Your task to perform on an android device: Go to Maps Image 0: 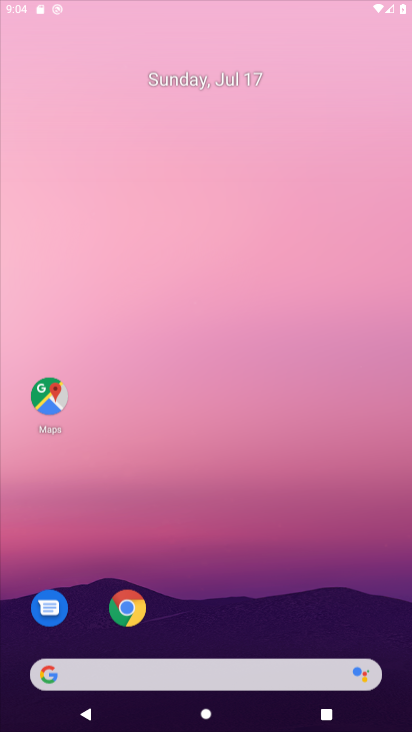
Step 0: click (329, 299)
Your task to perform on an android device: Go to Maps Image 1: 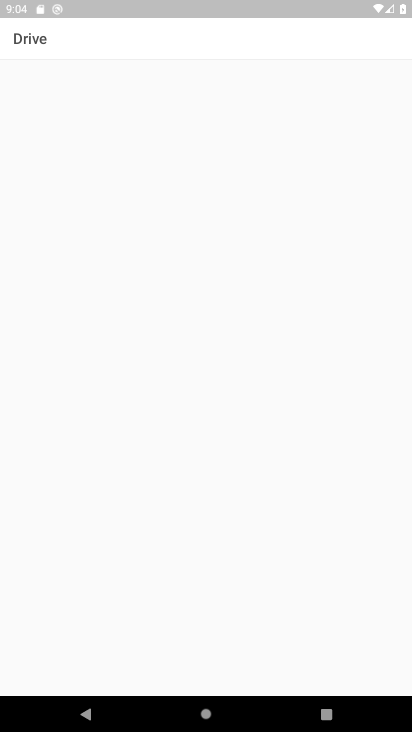
Step 1: press back button
Your task to perform on an android device: Go to Maps Image 2: 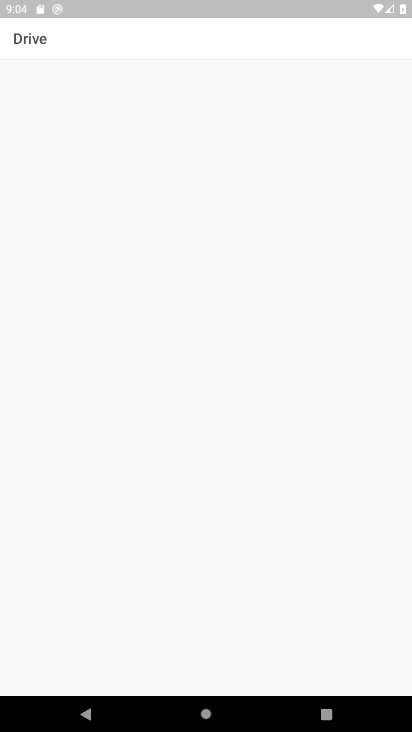
Step 2: press home button
Your task to perform on an android device: Go to Maps Image 3: 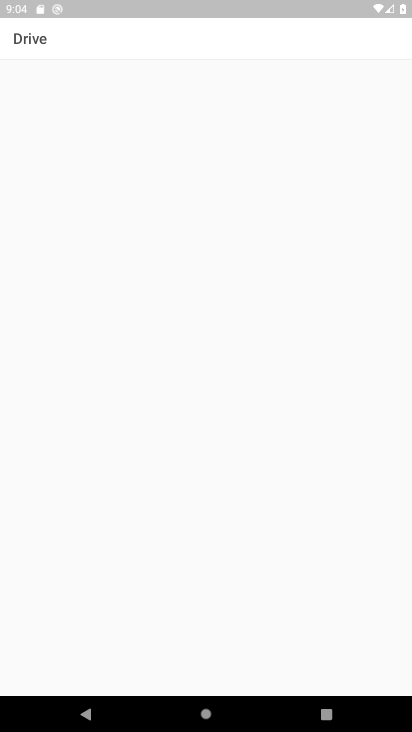
Step 3: click (268, 355)
Your task to perform on an android device: Go to Maps Image 4: 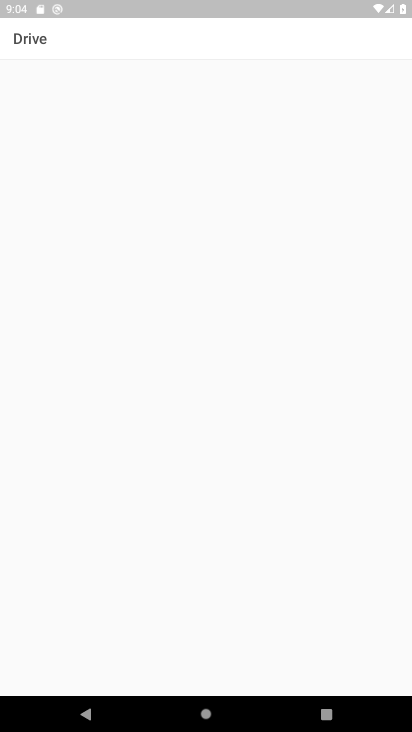
Step 4: click (268, 352)
Your task to perform on an android device: Go to Maps Image 5: 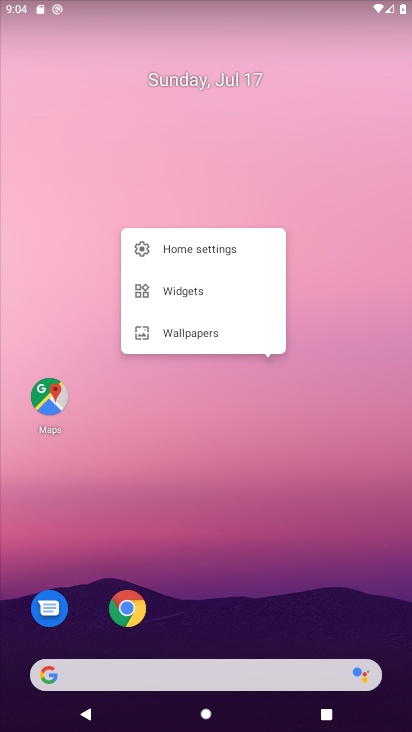
Step 5: drag from (264, 668) to (253, 196)
Your task to perform on an android device: Go to Maps Image 6: 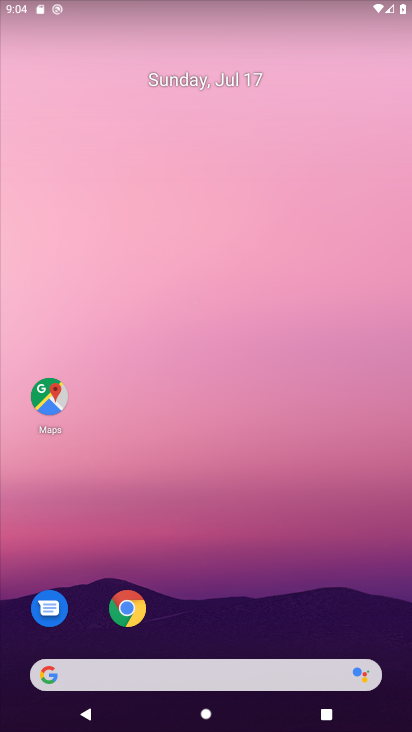
Step 6: drag from (237, 603) to (232, 126)
Your task to perform on an android device: Go to Maps Image 7: 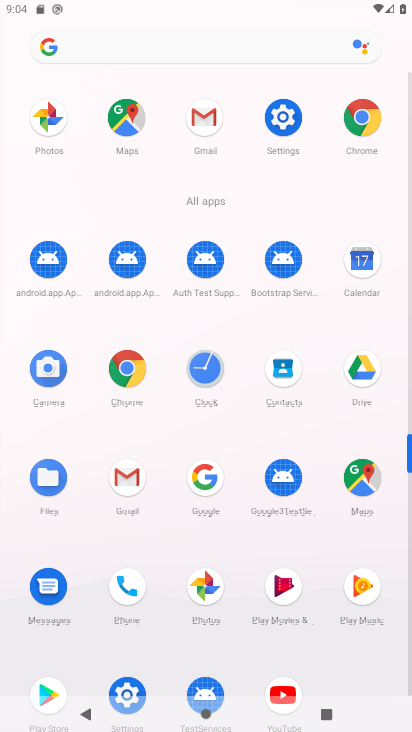
Step 7: click (360, 478)
Your task to perform on an android device: Go to Maps Image 8: 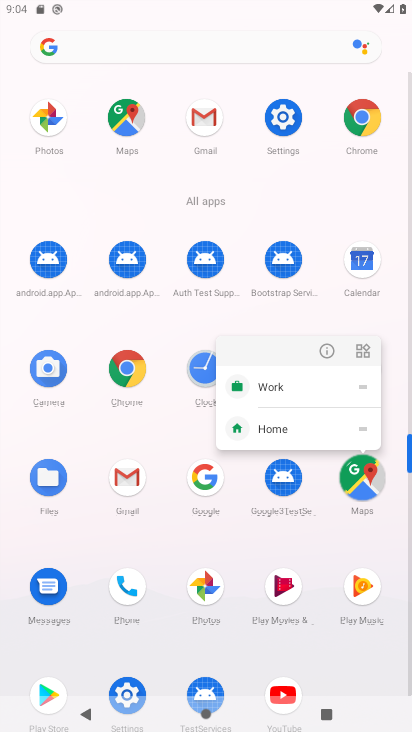
Step 8: click (365, 478)
Your task to perform on an android device: Go to Maps Image 9: 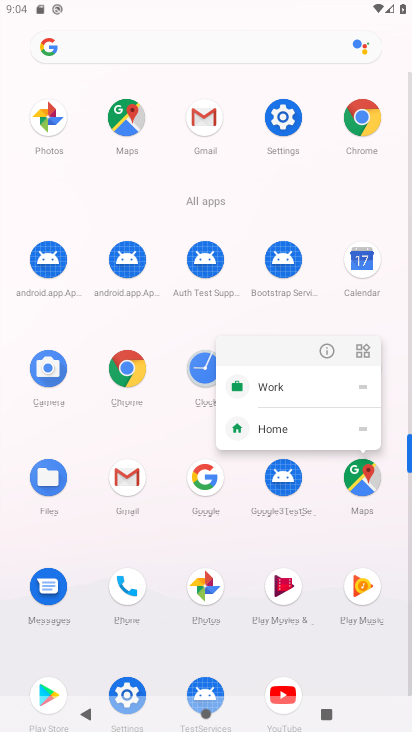
Step 9: click (365, 478)
Your task to perform on an android device: Go to Maps Image 10: 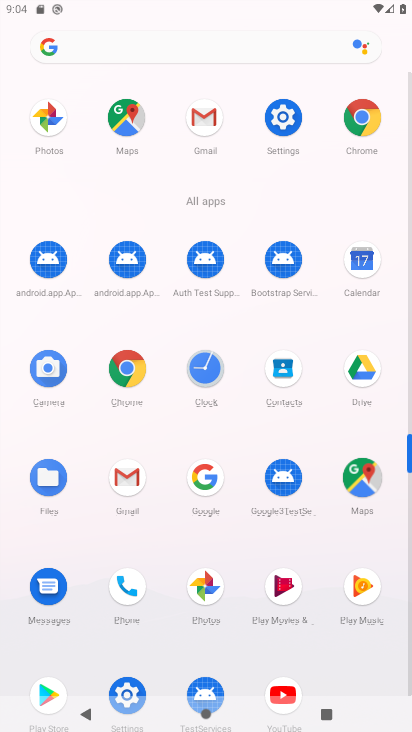
Step 10: click (368, 481)
Your task to perform on an android device: Go to Maps Image 11: 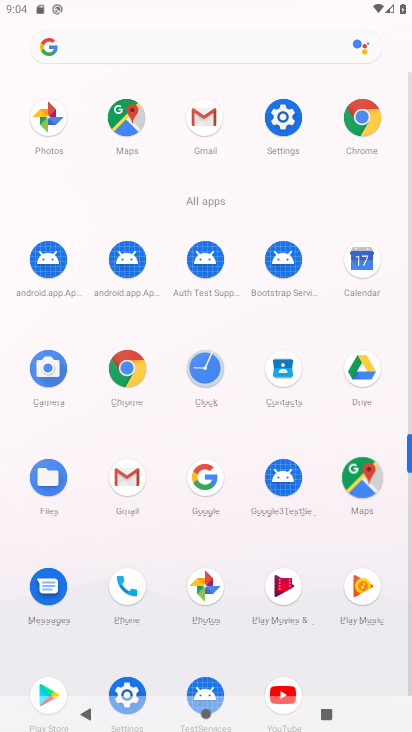
Step 11: click (368, 484)
Your task to perform on an android device: Go to Maps Image 12: 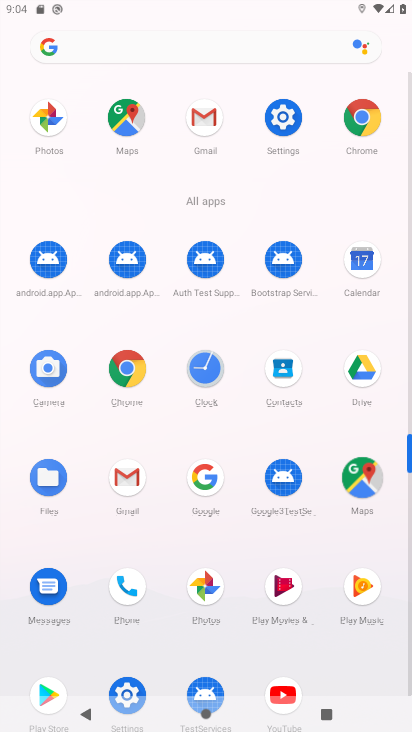
Step 12: click (345, 479)
Your task to perform on an android device: Go to Maps Image 13: 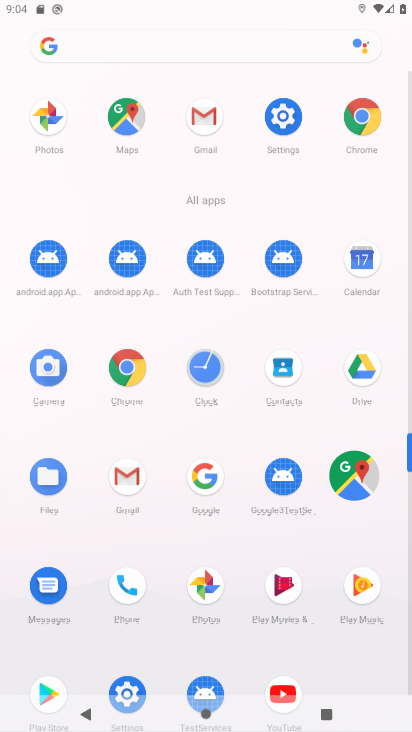
Step 13: click (344, 478)
Your task to perform on an android device: Go to Maps Image 14: 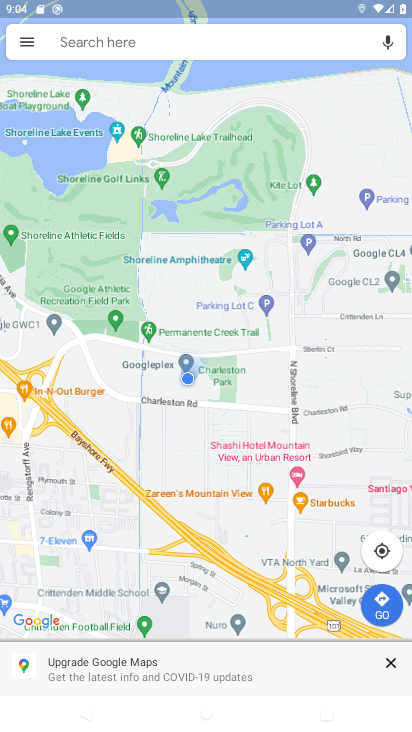
Step 14: click (72, 40)
Your task to perform on an android device: Go to Maps Image 15: 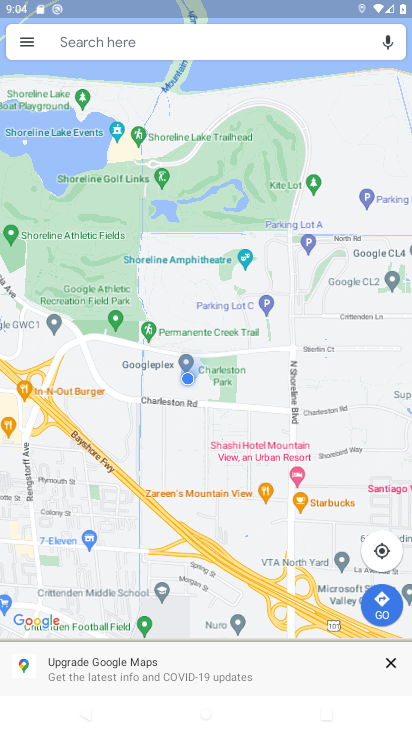
Step 15: click (71, 39)
Your task to perform on an android device: Go to Maps Image 16: 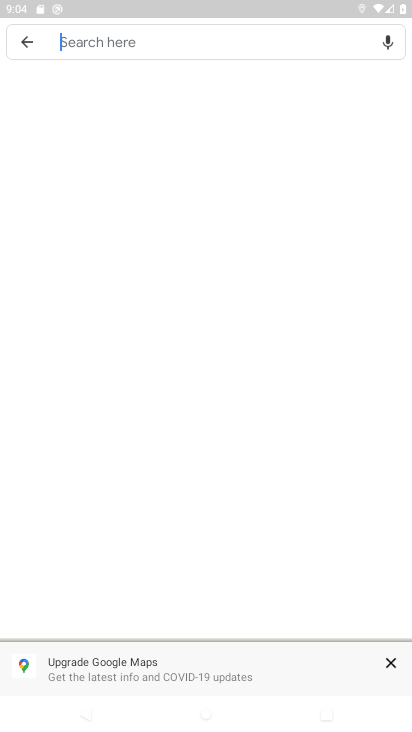
Step 16: click (68, 44)
Your task to perform on an android device: Go to Maps Image 17: 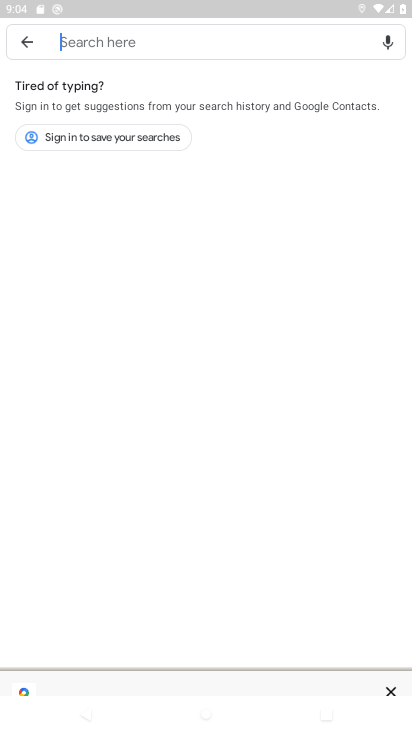
Step 17: click (69, 45)
Your task to perform on an android device: Go to Maps Image 18: 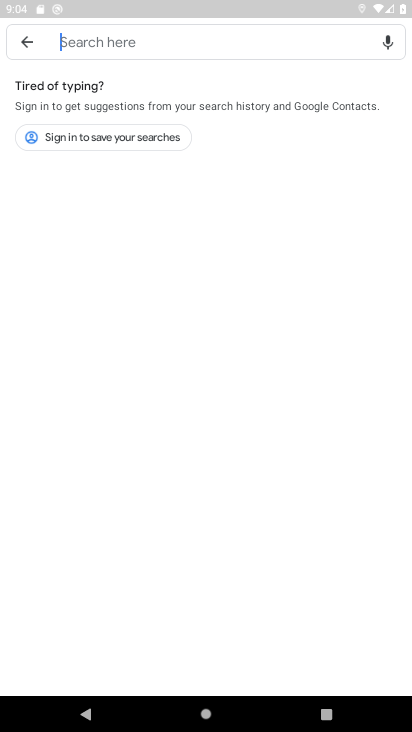
Step 18: click (29, 39)
Your task to perform on an android device: Go to Maps Image 19: 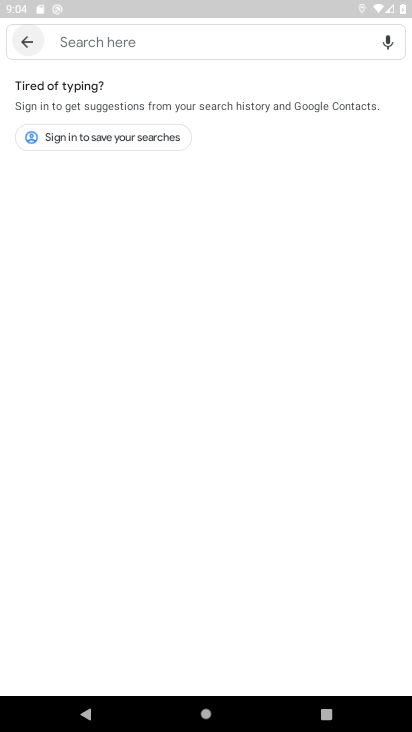
Step 19: click (29, 40)
Your task to perform on an android device: Go to Maps Image 20: 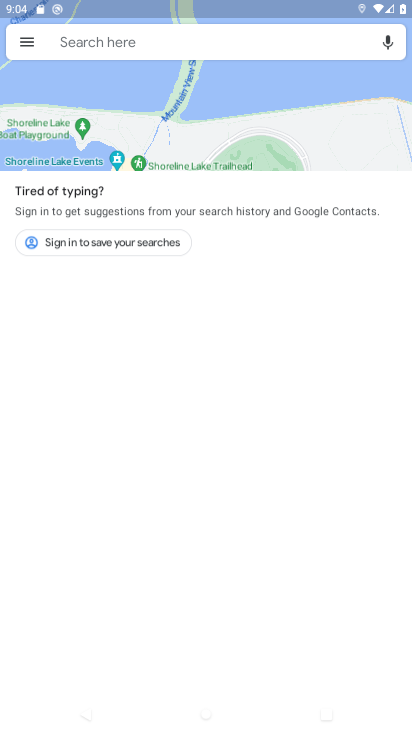
Step 20: click (32, 44)
Your task to perform on an android device: Go to Maps Image 21: 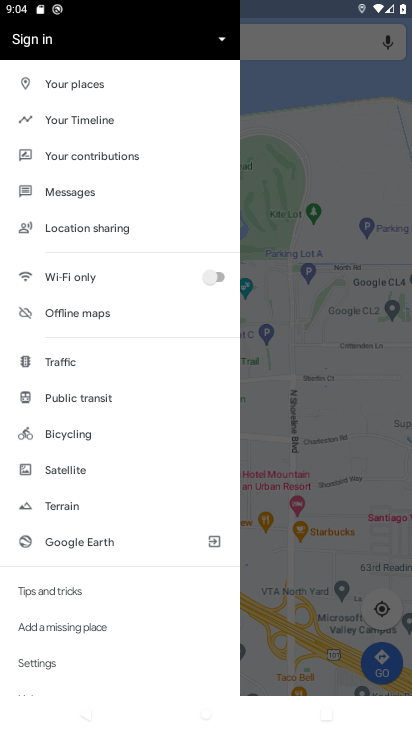
Step 21: task complete